Your task to perform on an android device: Open battery settings Image 0: 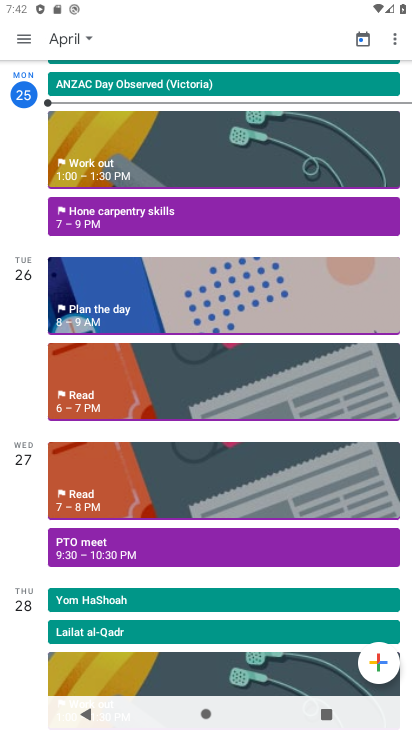
Step 0: press home button
Your task to perform on an android device: Open battery settings Image 1: 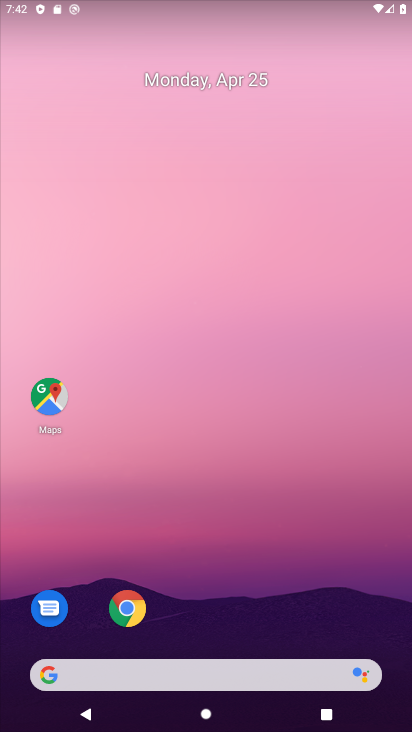
Step 1: drag from (240, 446) to (235, 122)
Your task to perform on an android device: Open battery settings Image 2: 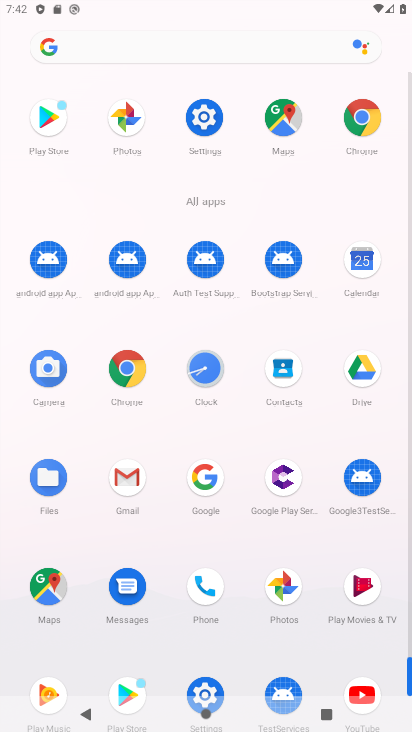
Step 2: click (196, 118)
Your task to perform on an android device: Open battery settings Image 3: 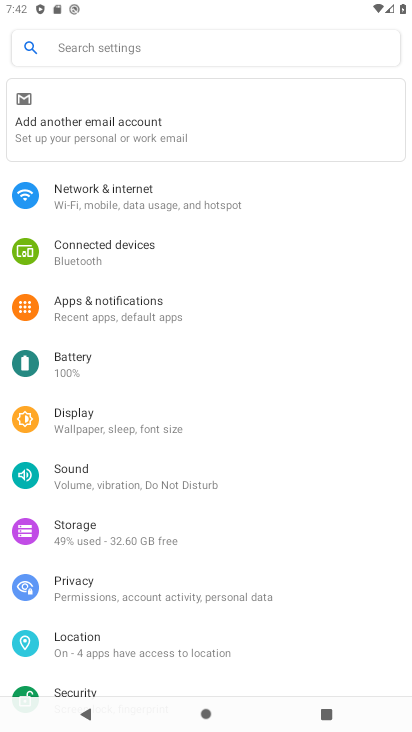
Step 3: click (84, 361)
Your task to perform on an android device: Open battery settings Image 4: 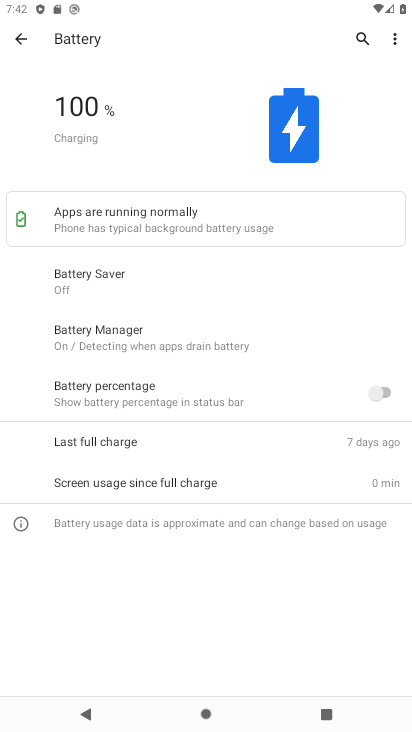
Step 4: task complete